Your task to perform on an android device: Show me popular videos on Youtube Image 0: 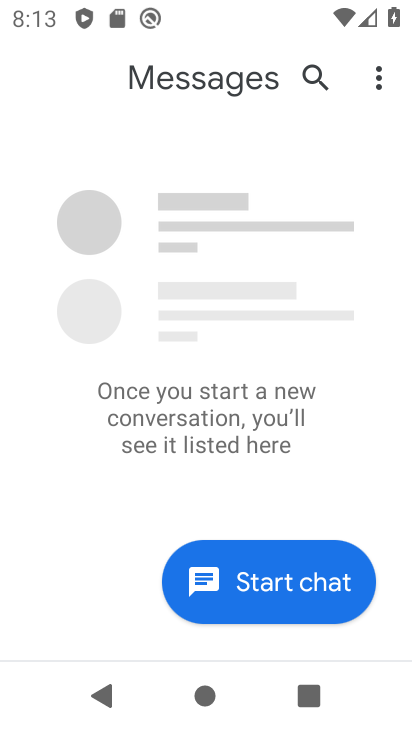
Step 0: press home button
Your task to perform on an android device: Show me popular videos on Youtube Image 1: 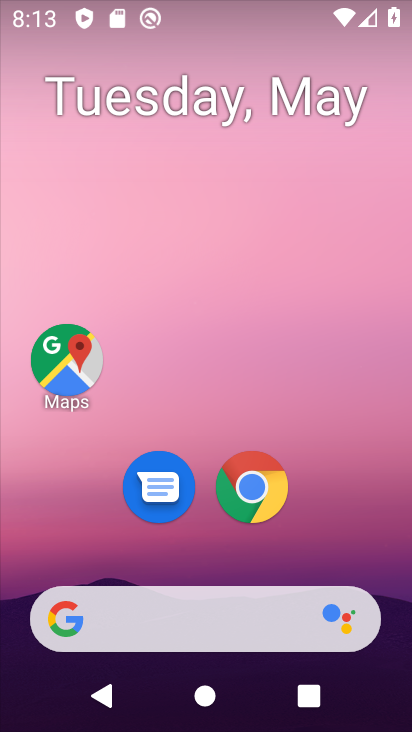
Step 1: drag from (80, 601) to (212, 226)
Your task to perform on an android device: Show me popular videos on Youtube Image 2: 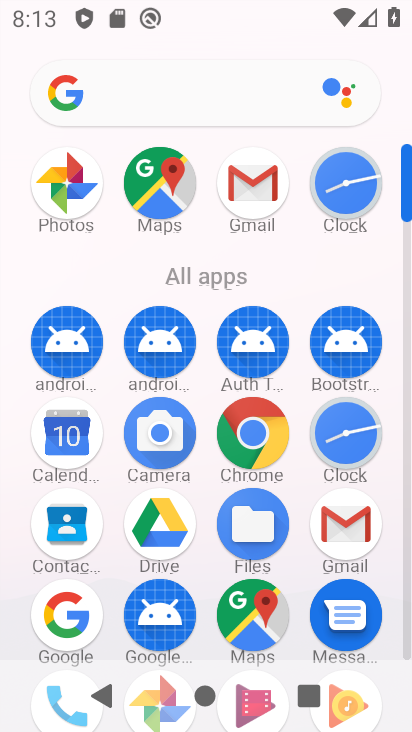
Step 2: drag from (151, 593) to (241, 333)
Your task to perform on an android device: Show me popular videos on Youtube Image 3: 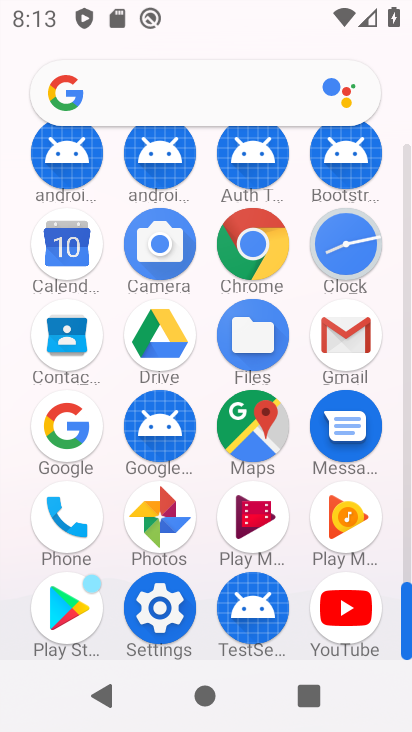
Step 3: click (356, 607)
Your task to perform on an android device: Show me popular videos on Youtube Image 4: 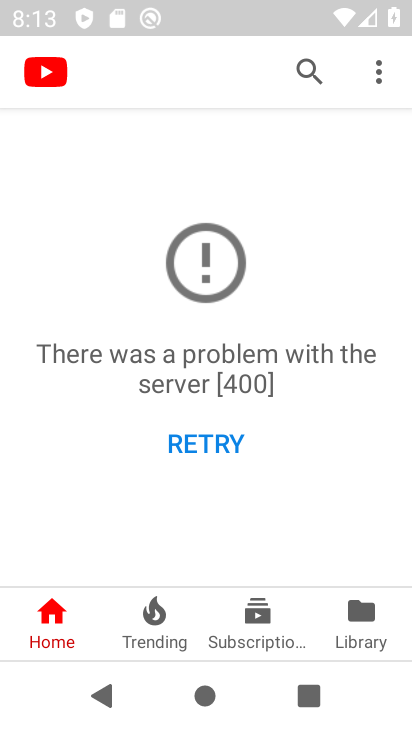
Step 4: click (161, 617)
Your task to perform on an android device: Show me popular videos on Youtube Image 5: 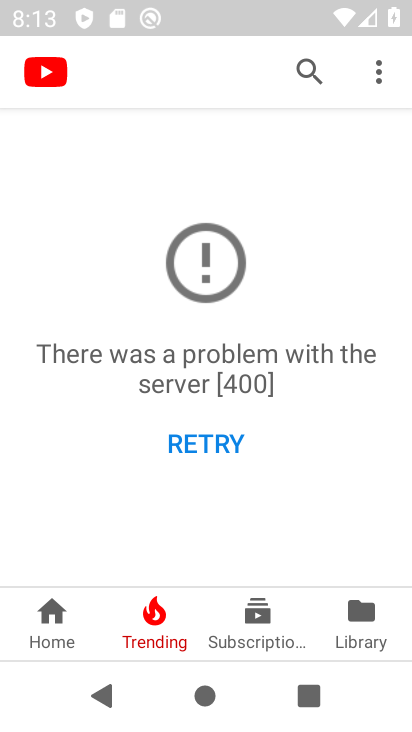
Step 5: task complete